Your task to perform on an android device: turn on the 24-hour format for clock Image 0: 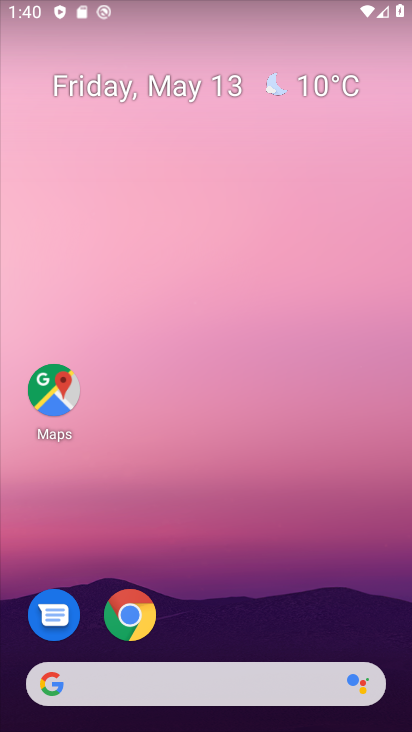
Step 0: drag from (250, 468) to (269, 208)
Your task to perform on an android device: turn on the 24-hour format for clock Image 1: 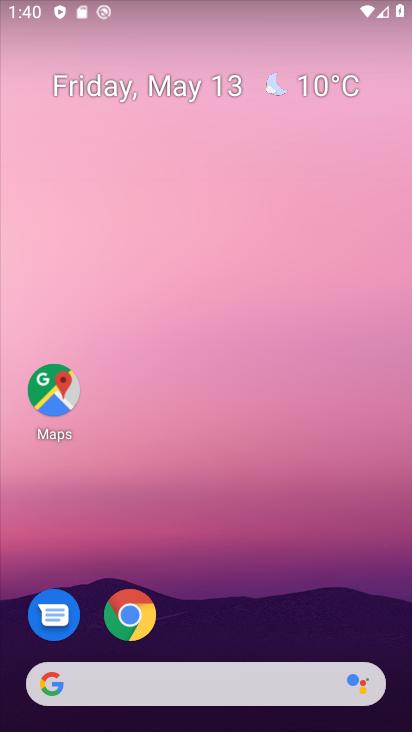
Step 1: drag from (243, 595) to (203, 108)
Your task to perform on an android device: turn on the 24-hour format for clock Image 2: 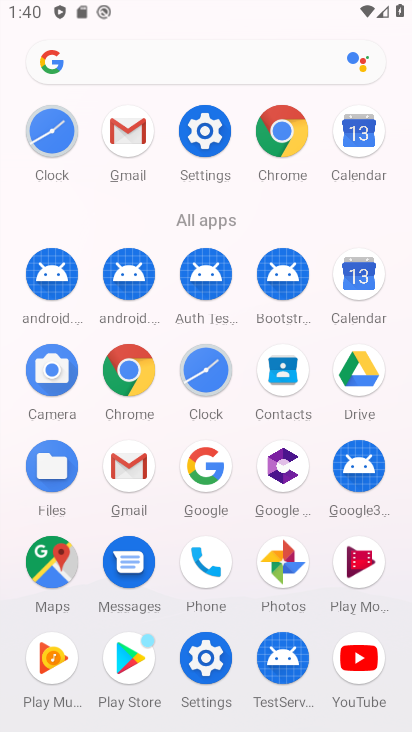
Step 2: click (56, 143)
Your task to perform on an android device: turn on the 24-hour format for clock Image 3: 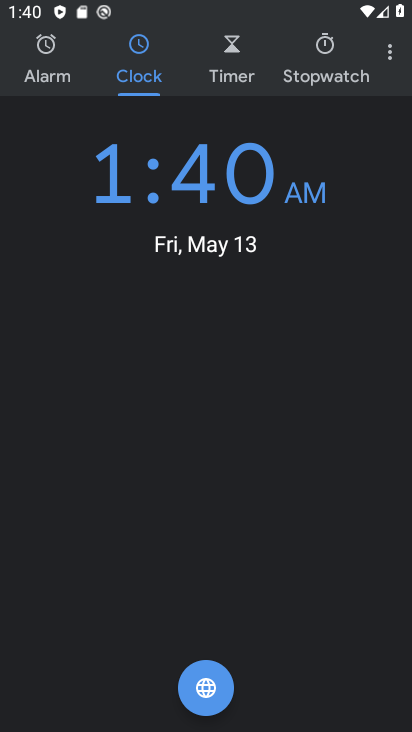
Step 3: click (393, 46)
Your task to perform on an android device: turn on the 24-hour format for clock Image 4: 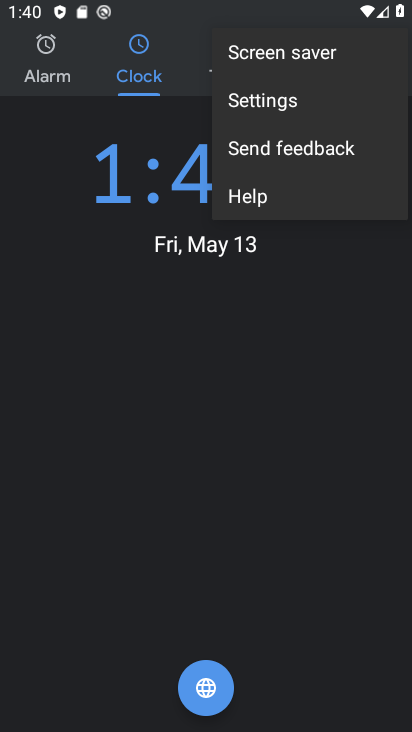
Step 4: click (297, 94)
Your task to perform on an android device: turn on the 24-hour format for clock Image 5: 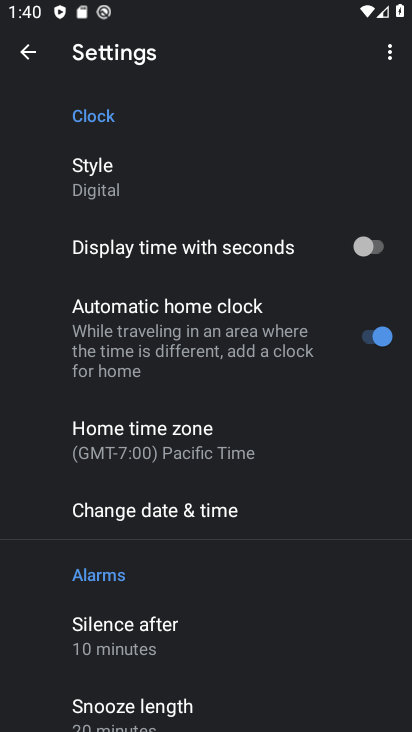
Step 5: click (182, 512)
Your task to perform on an android device: turn on the 24-hour format for clock Image 6: 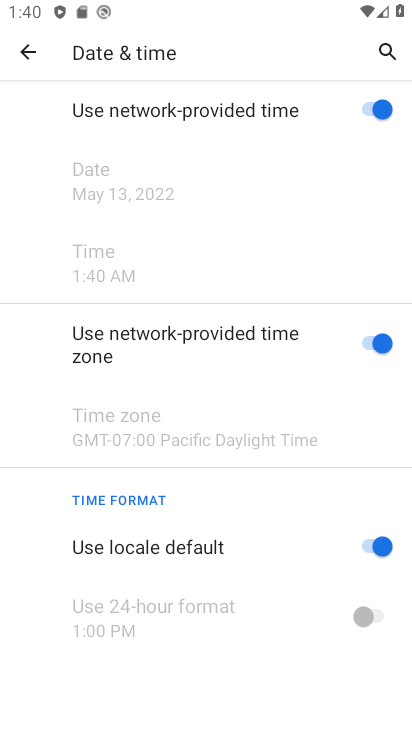
Step 6: drag from (145, 641) to (176, 431)
Your task to perform on an android device: turn on the 24-hour format for clock Image 7: 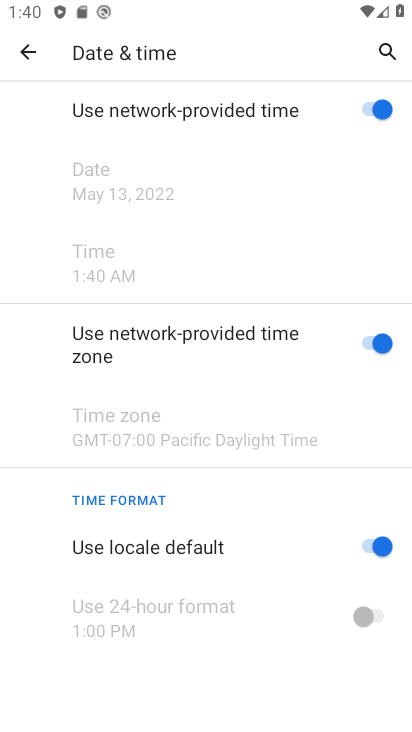
Step 7: click (362, 549)
Your task to perform on an android device: turn on the 24-hour format for clock Image 8: 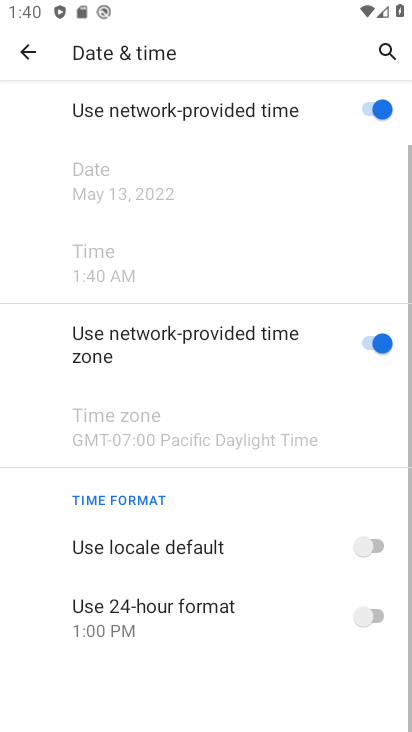
Step 8: click (376, 615)
Your task to perform on an android device: turn on the 24-hour format for clock Image 9: 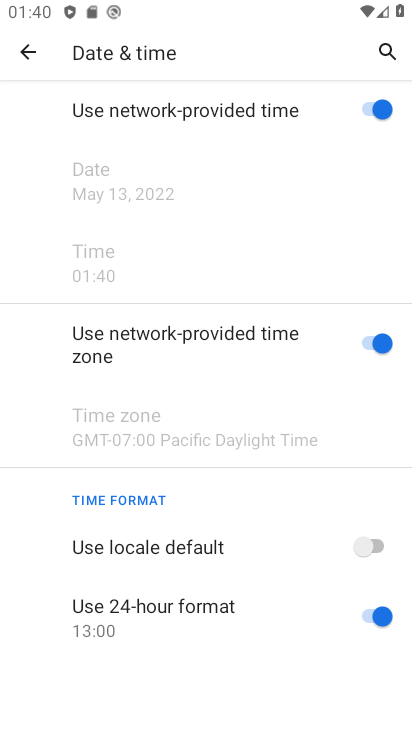
Step 9: task complete